Your task to perform on an android device: refresh tabs in the chrome app Image 0: 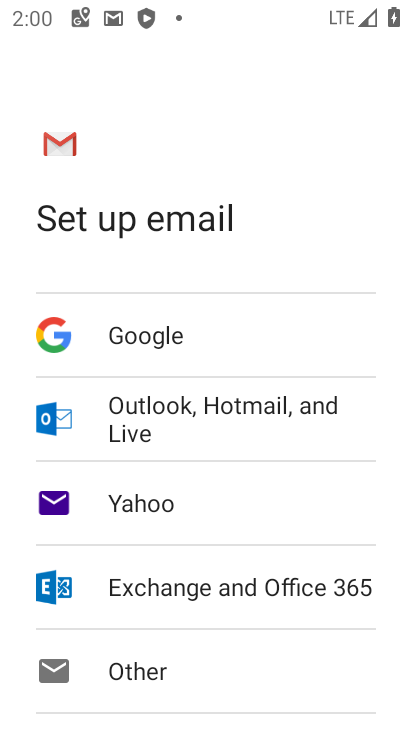
Step 0: drag from (232, 680) to (240, 250)
Your task to perform on an android device: refresh tabs in the chrome app Image 1: 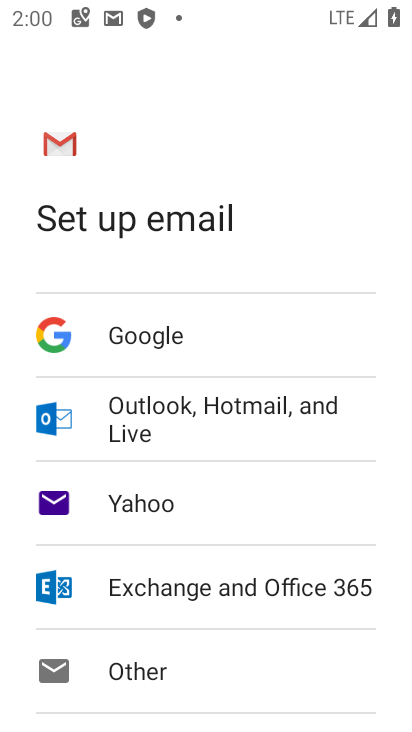
Step 1: press home button
Your task to perform on an android device: refresh tabs in the chrome app Image 2: 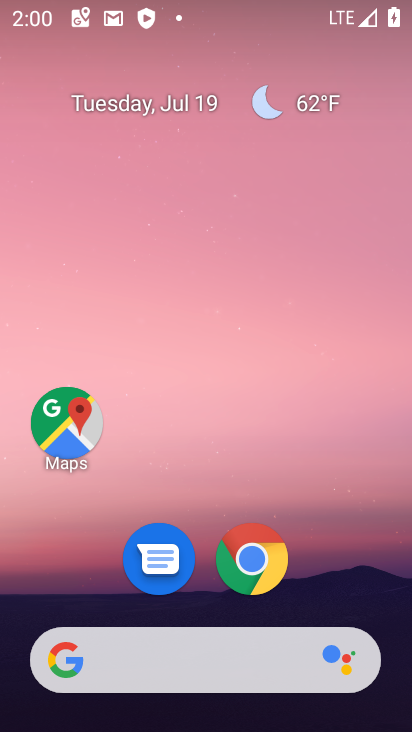
Step 2: drag from (166, 584) to (164, 190)
Your task to perform on an android device: refresh tabs in the chrome app Image 3: 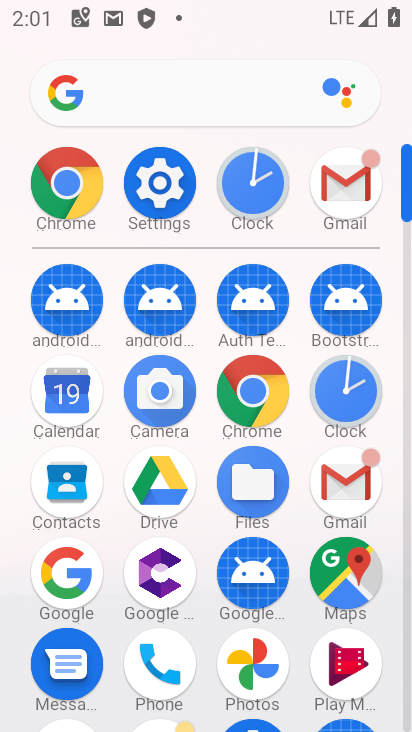
Step 3: click (269, 394)
Your task to perform on an android device: refresh tabs in the chrome app Image 4: 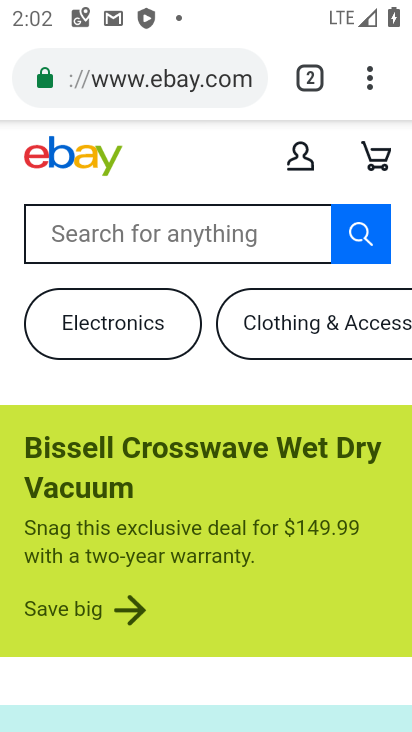
Step 4: click (377, 81)
Your task to perform on an android device: refresh tabs in the chrome app Image 5: 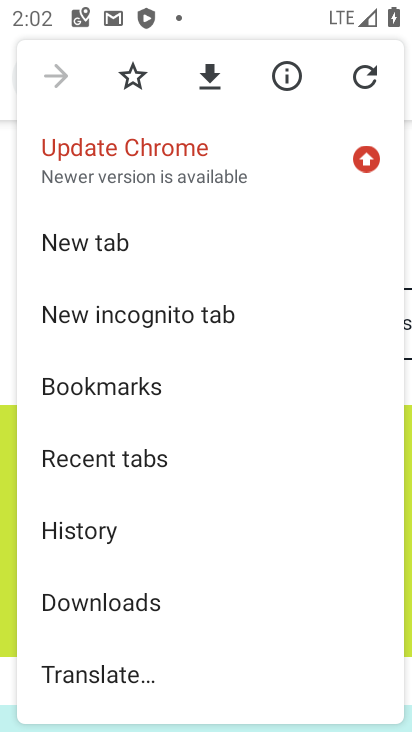
Step 5: click (373, 90)
Your task to perform on an android device: refresh tabs in the chrome app Image 6: 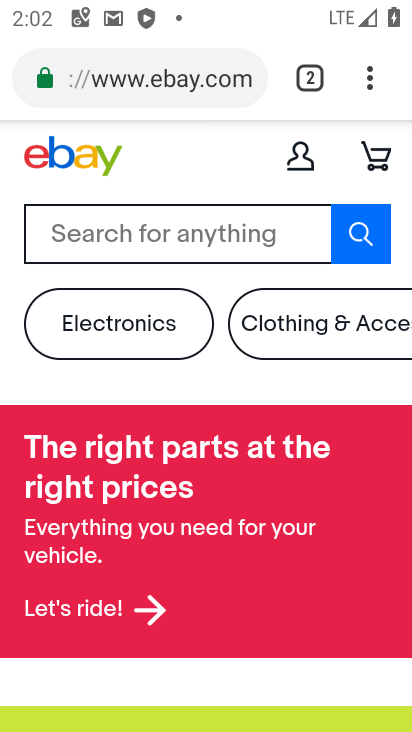
Step 6: task complete